Your task to perform on an android device: open sync settings in chrome Image 0: 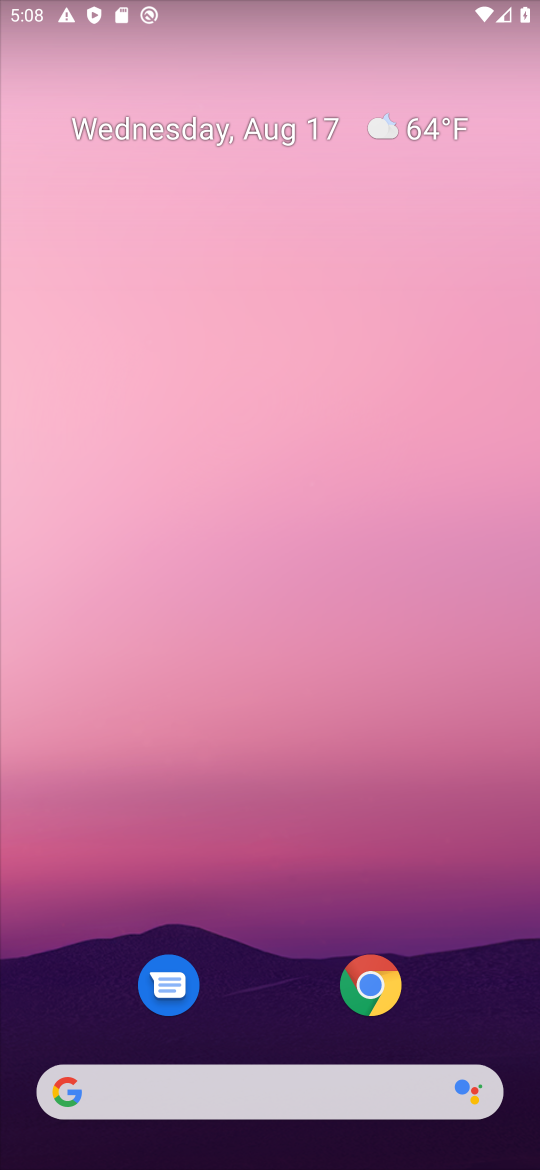
Step 0: click (370, 981)
Your task to perform on an android device: open sync settings in chrome Image 1: 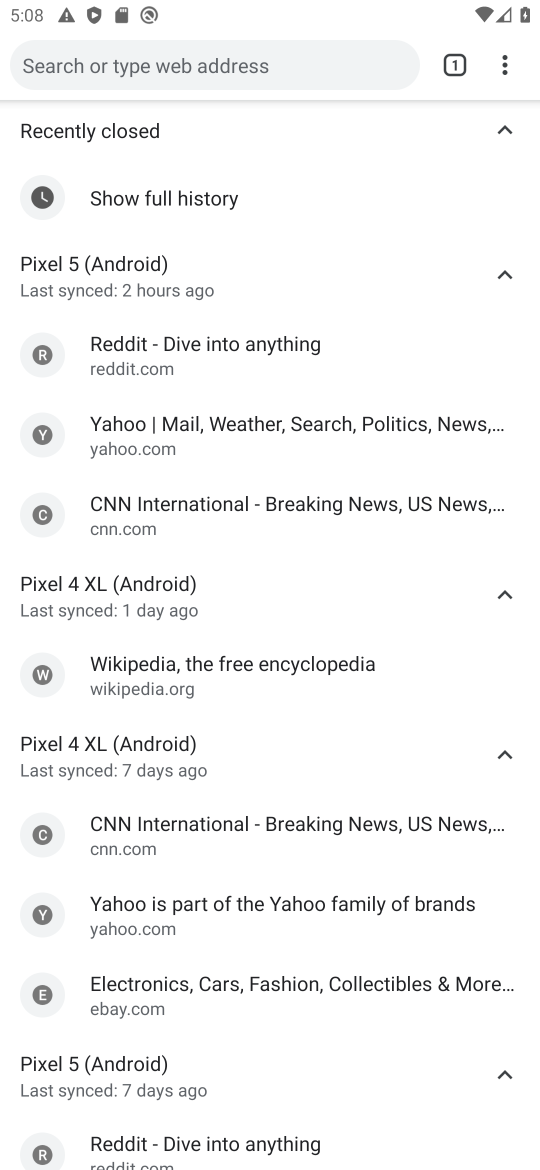
Step 1: click (531, 69)
Your task to perform on an android device: open sync settings in chrome Image 2: 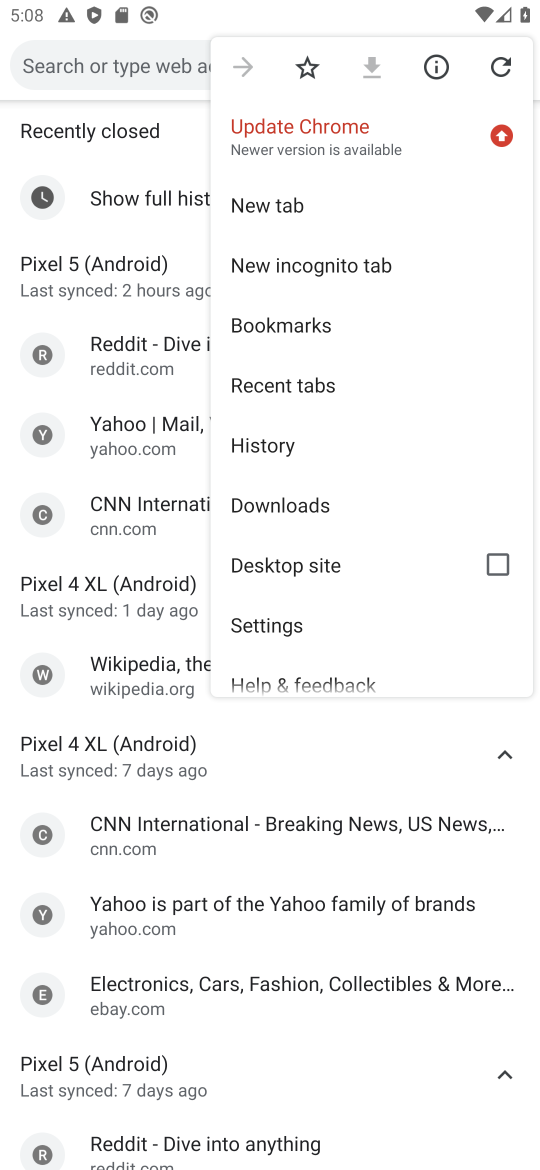
Step 2: click (282, 625)
Your task to perform on an android device: open sync settings in chrome Image 3: 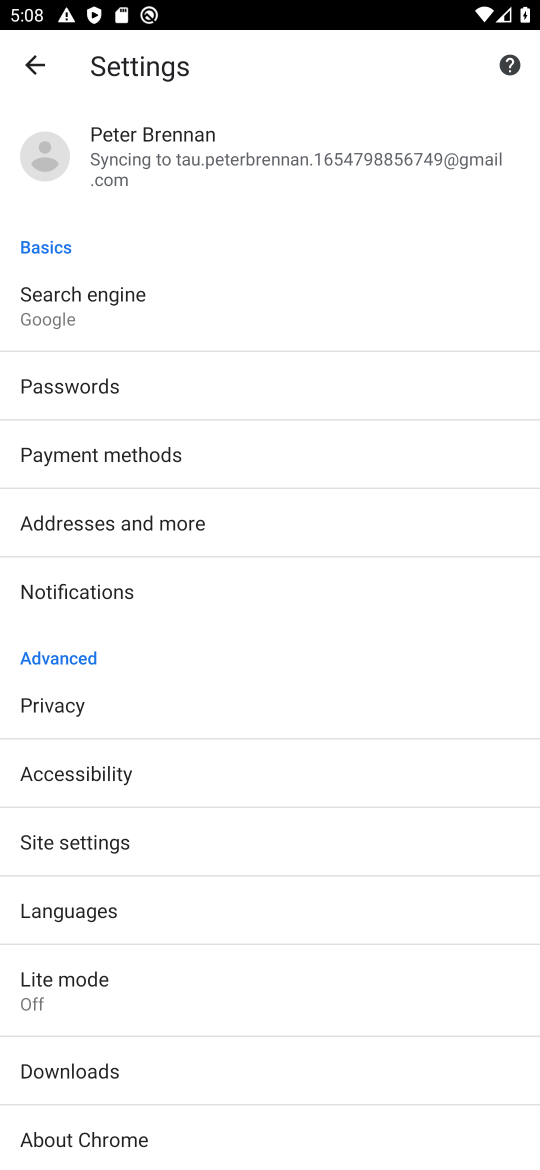
Step 3: drag from (206, 908) to (260, 772)
Your task to perform on an android device: open sync settings in chrome Image 4: 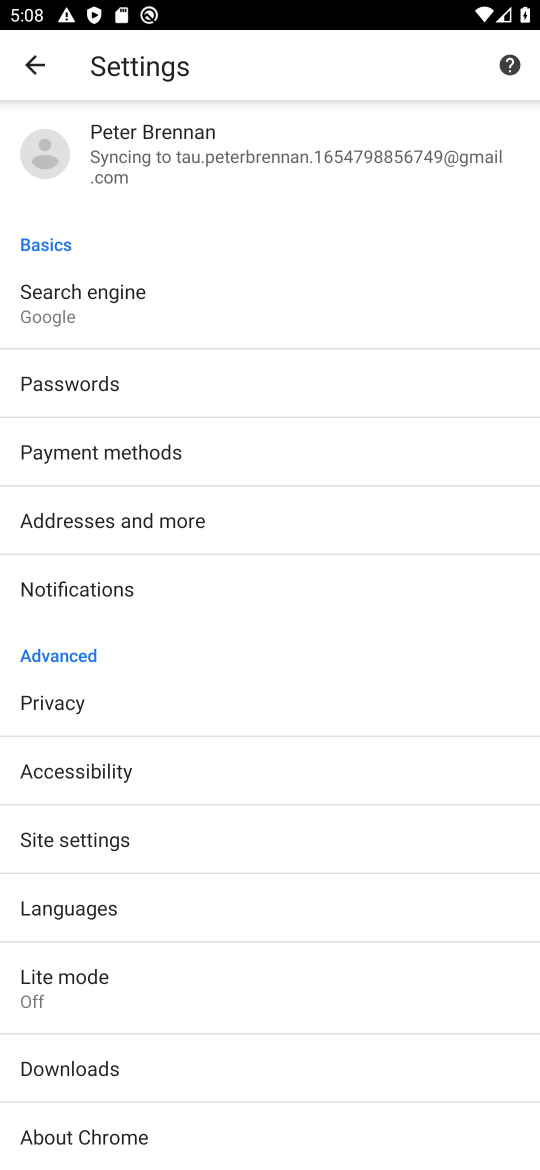
Step 4: click (113, 843)
Your task to perform on an android device: open sync settings in chrome Image 5: 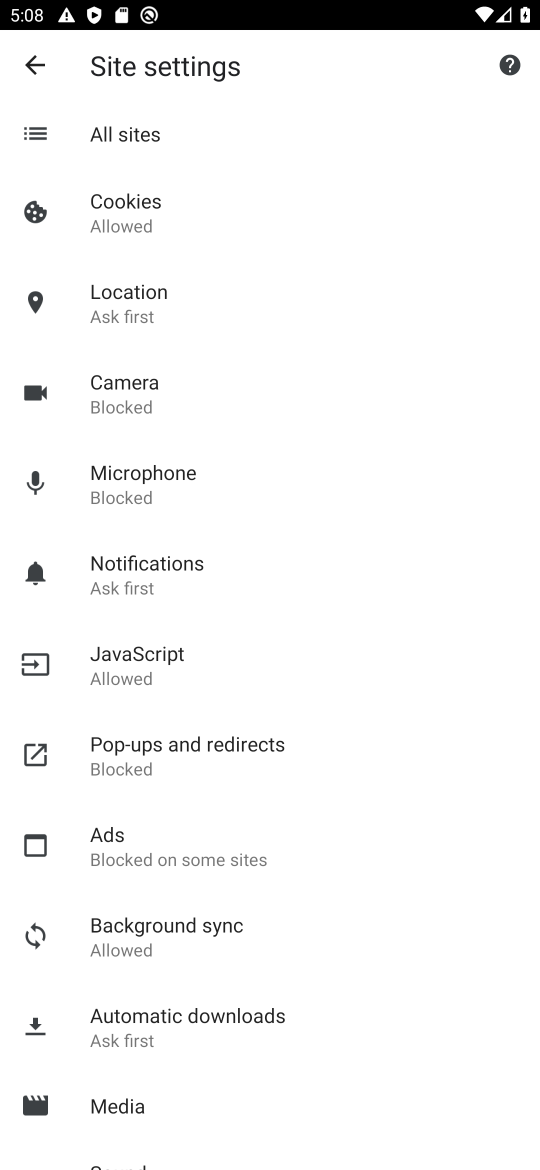
Step 5: drag from (181, 960) to (268, 802)
Your task to perform on an android device: open sync settings in chrome Image 6: 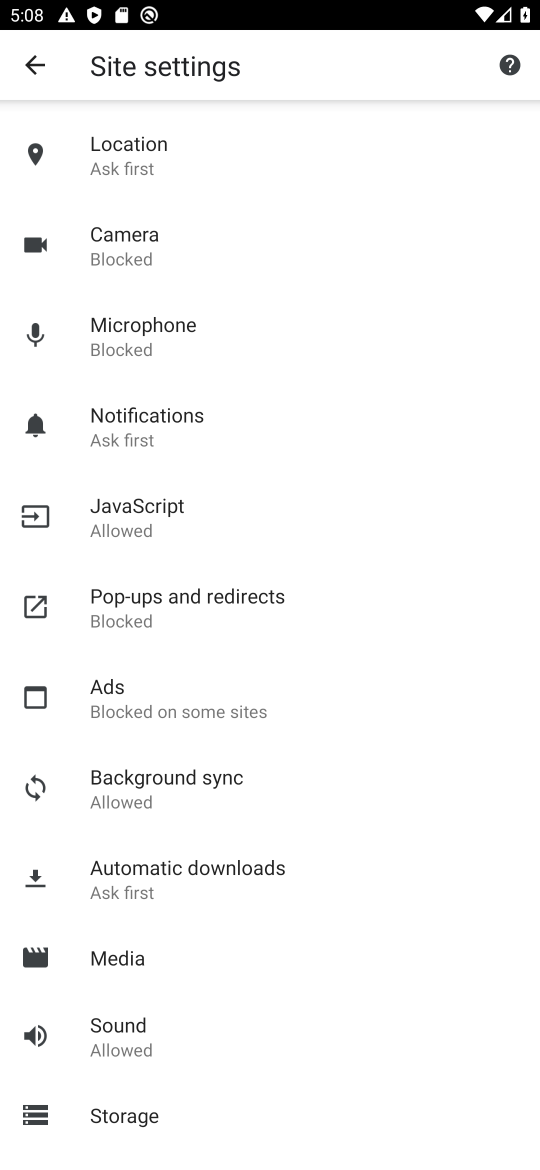
Step 6: click (246, 769)
Your task to perform on an android device: open sync settings in chrome Image 7: 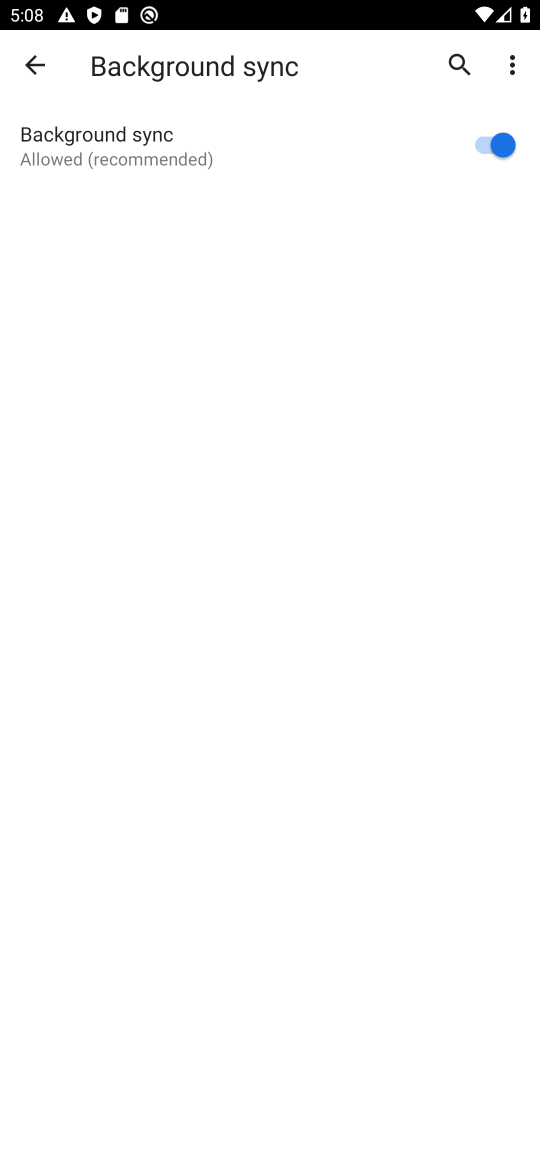
Step 7: task complete